Your task to perform on an android device: Open the Play Movies app and select the watchlist tab. Image 0: 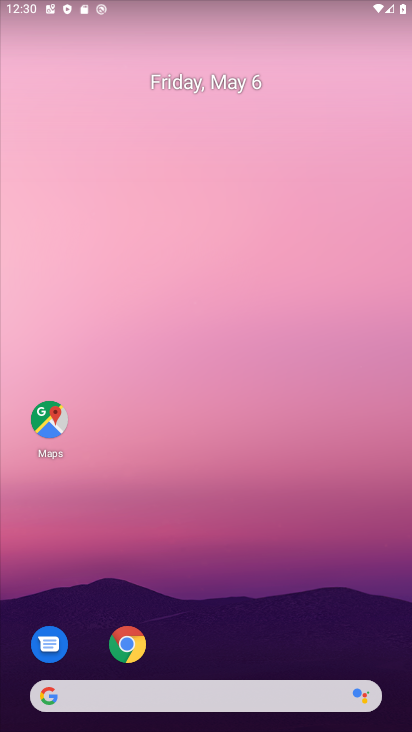
Step 0: drag from (251, 679) to (269, 5)
Your task to perform on an android device: Open the Play Movies app and select the watchlist tab. Image 1: 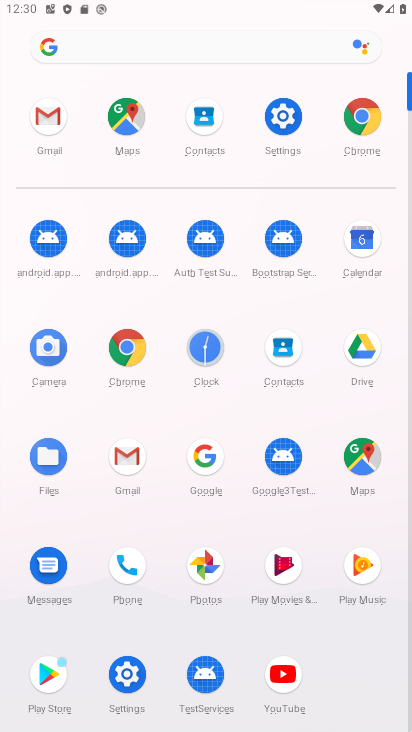
Step 1: click (281, 560)
Your task to perform on an android device: Open the Play Movies app and select the watchlist tab. Image 2: 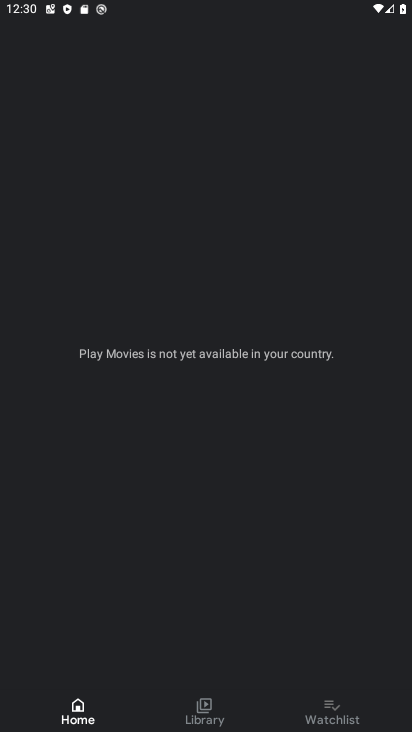
Step 2: click (319, 711)
Your task to perform on an android device: Open the Play Movies app and select the watchlist tab. Image 3: 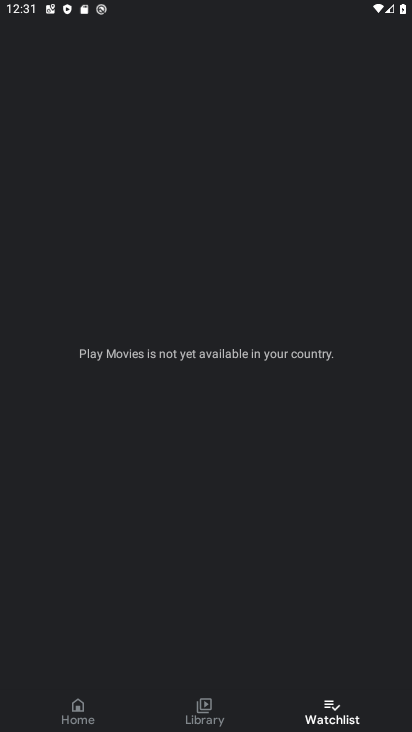
Step 3: task complete